Your task to perform on an android device: create a new album in the google photos Image 0: 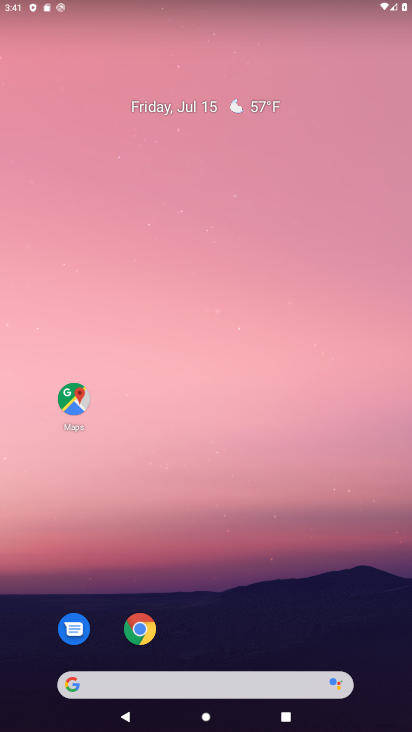
Step 0: press home button
Your task to perform on an android device: create a new album in the google photos Image 1: 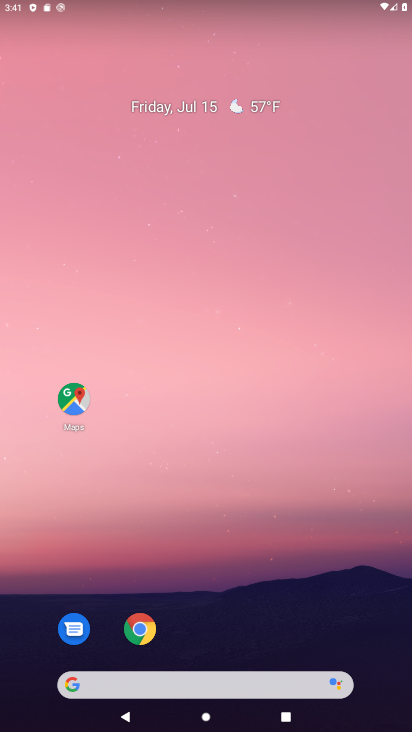
Step 1: press home button
Your task to perform on an android device: create a new album in the google photos Image 2: 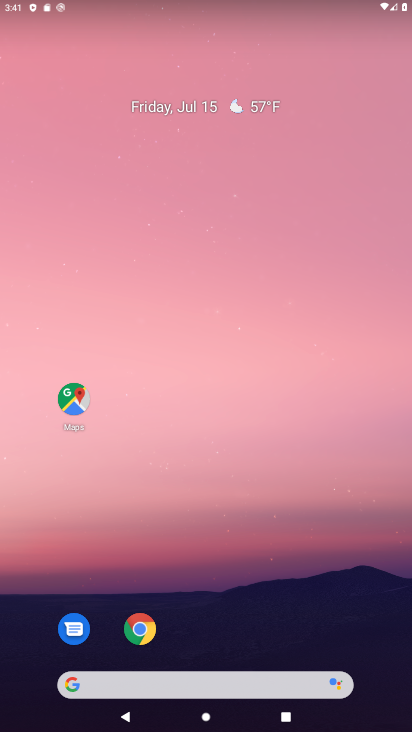
Step 2: drag from (280, 627) to (255, 152)
Your task to perform on an android device: create a new album in the google photos Image 3: 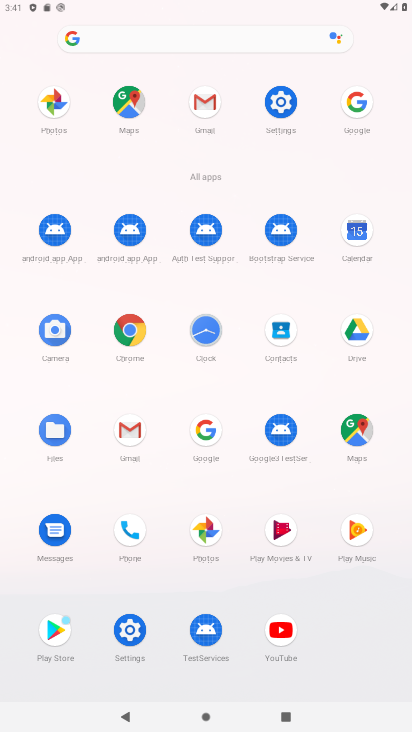
Step 3: click (217, 527)
Your task to perform on an android device: create a new album in the google photos Image 4: 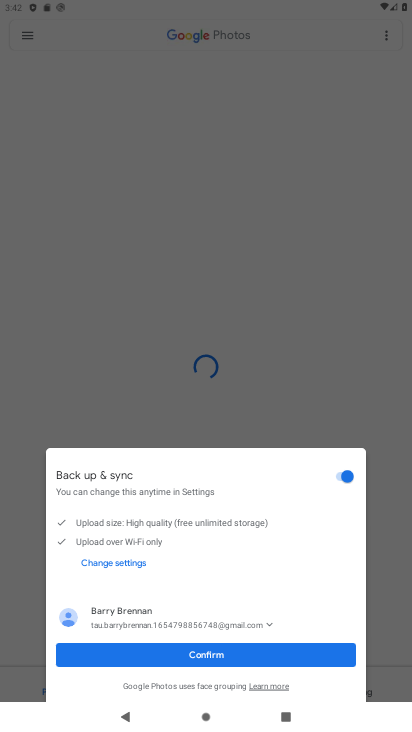
Step 4: click (182, 653)
Your task to perform on an android device: create a new album in the google photos Image 5: 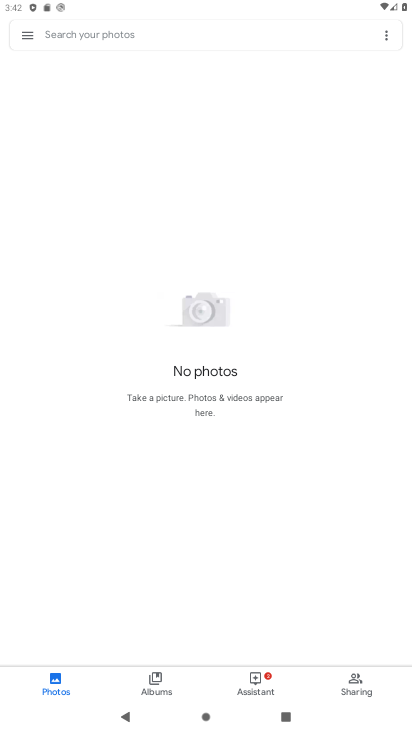
Step 5: click (161, 677)
Your task to perform on an android device: create a new album in the google photos Image 6: 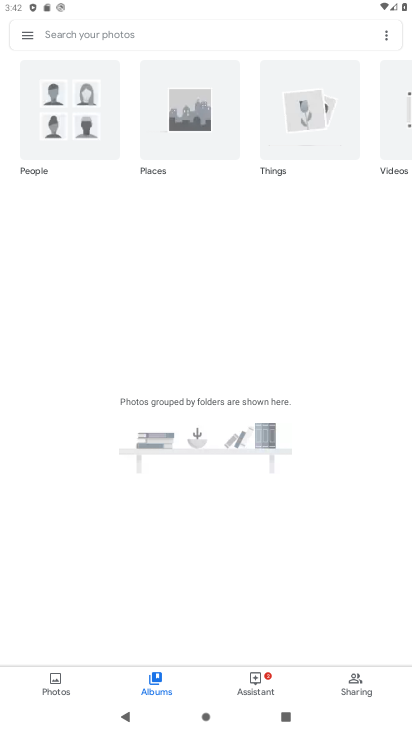
Step 6: task complete